Your task to perform on an android device: Open Yahoo.com Image 0: 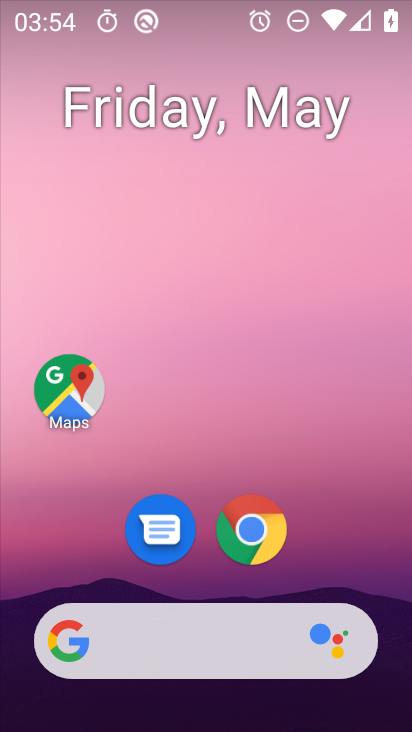
Step 0: click (256, 524)
Your task to perform on an android device: Open Yahoo.com Image 1: 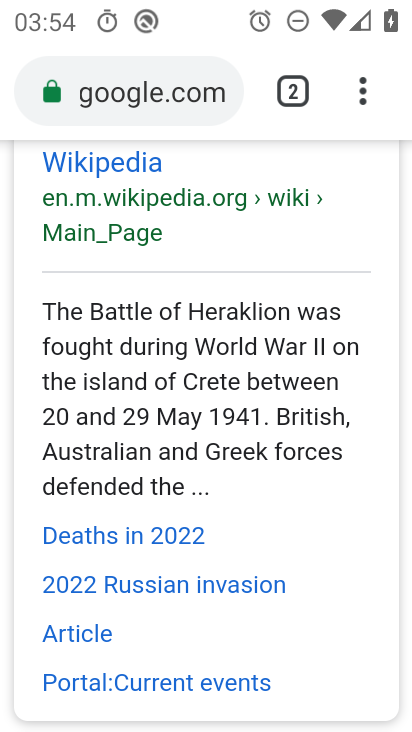
Step 1: click (226, 89)
Your task to perform on an android device: Open Yahoo.com Image 2: 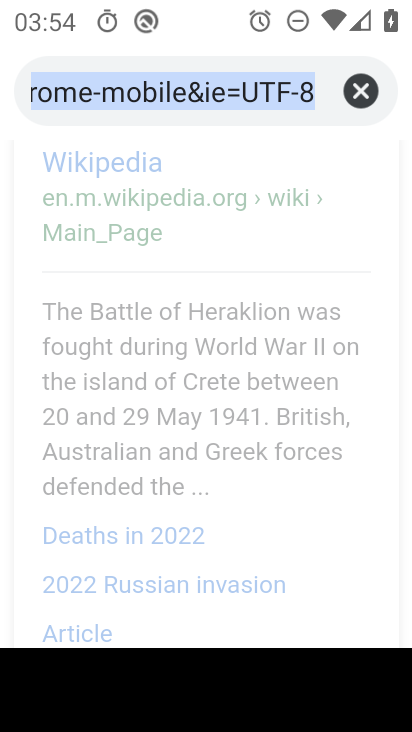
Step 2: click (359, 91)
Your task to perform on an android device: Open Yahoo.com Image 3: 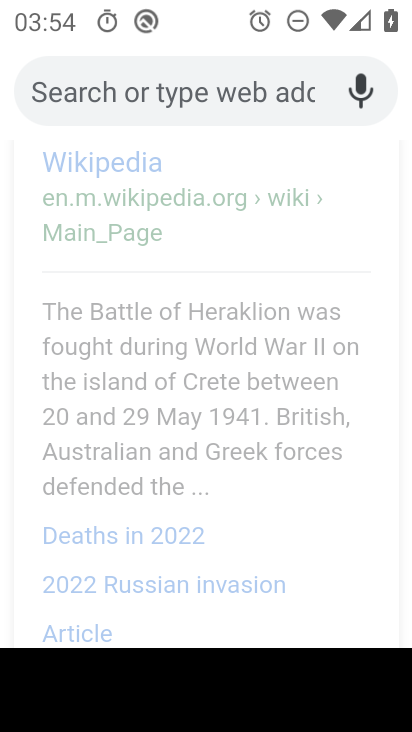
Step 3: type "Yahoo.com"
Your task to perform on an android device: Open Yahoo.com Image 4: 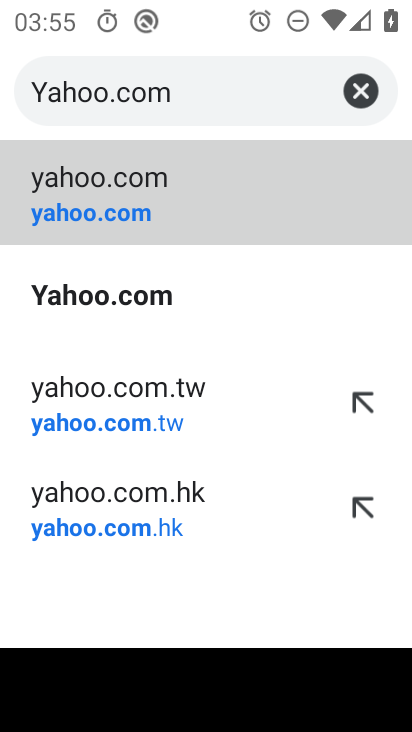
Step 4: click (116, 291)
Your task to perform on an android device: Open Yahoo.com Image 5: 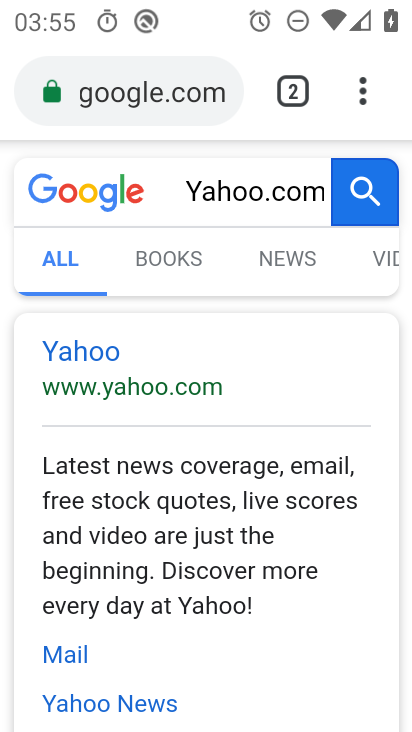
Step 5: task complete